Your task to perform on an android device: toggle notifications settings in the gmail app Image 0: 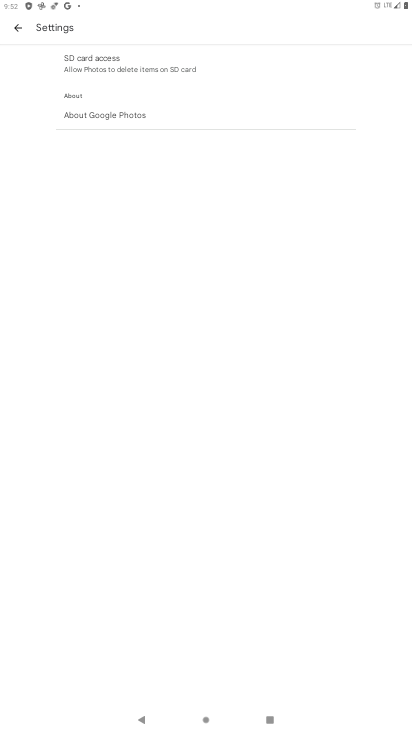
Step 0: press home button
Your task to perform on an android device: toggle notifications settings in the gmail app Image 1: 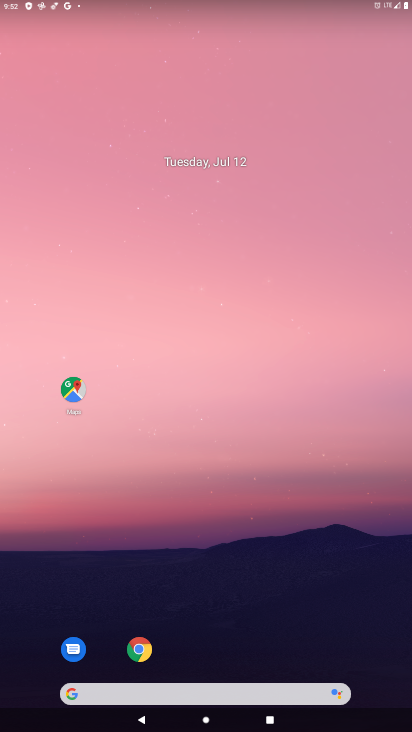
Step 1: drag from (242, 632) to (243, 30)
Your task to perform on an android device: toggle notifications settings in the gmail app Image 2: 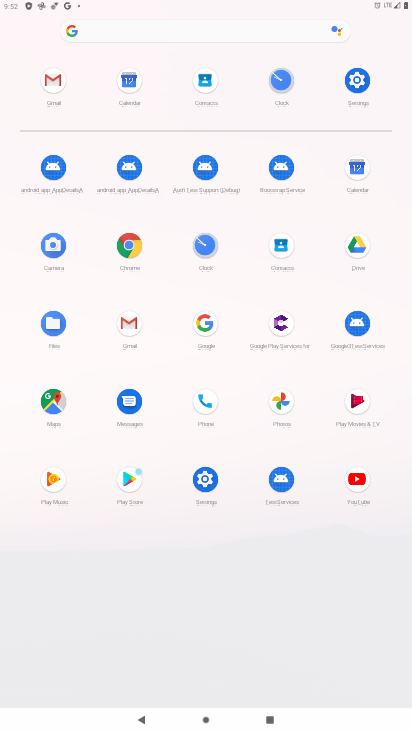
Step 2: click (54, 104)
Your task to perform on an android device: toggle notifications settings in the gmail app Image 3: 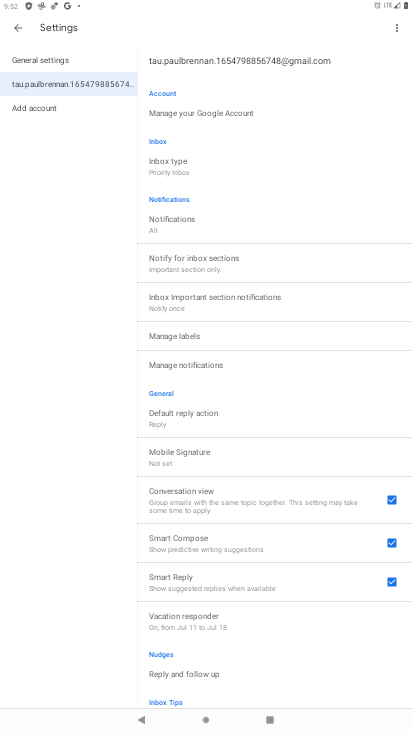
Step 3: click (172, 228)
Your task to perform on an android device: toggle notifications settings in the gmail app Image 4: 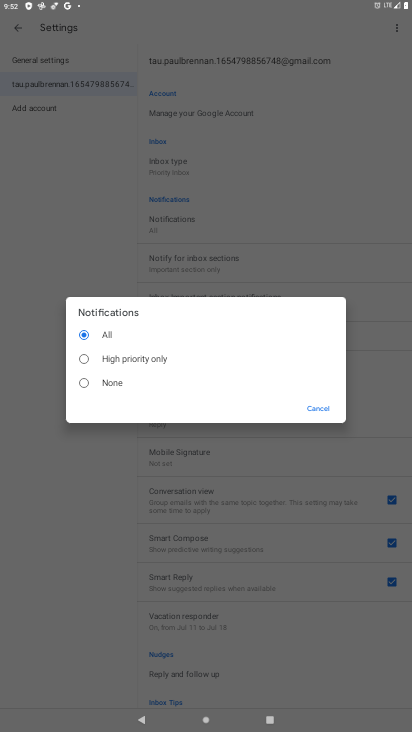
Step 4: click (164, 353)
Your task to perform on an android device: toggle notifications settings in the gmail app Image 5: 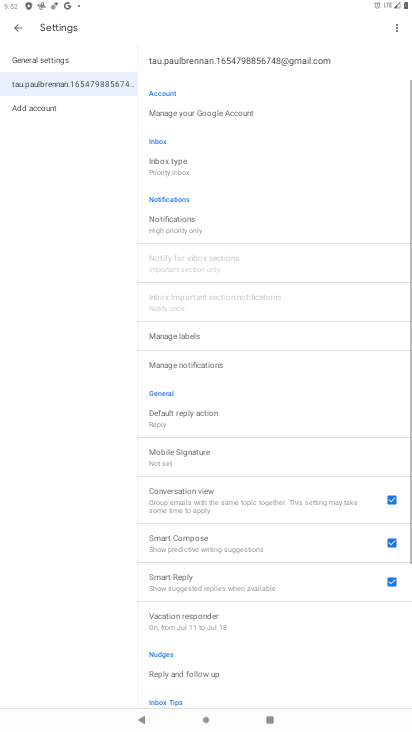
Step 5: task complete